Your task to perform on an android device: Do I have any events tomorrow? Image 0: 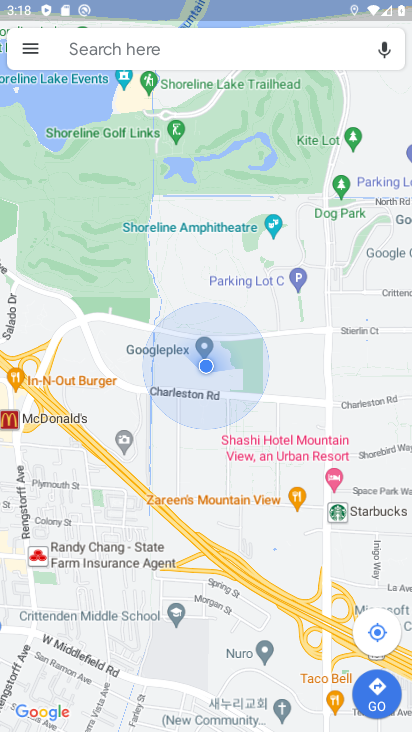
Step 0: press home button
Your task to perform on an android device: Do I have any events tomorrow? Image 1: 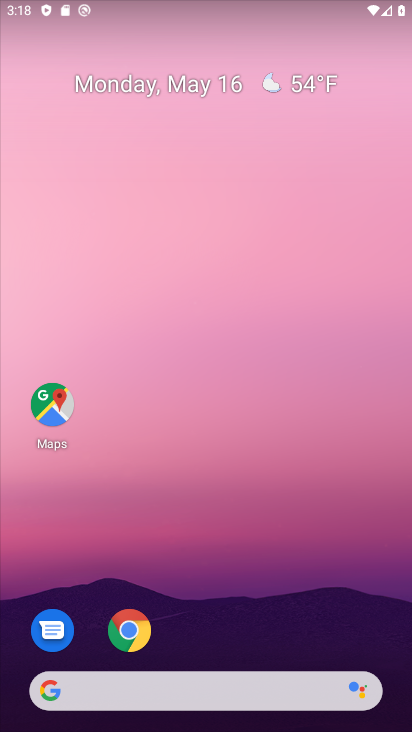
Step 1: drag from (245, 626) to (183, 196)
Your task to perform on an android device: Do I have any events tomorrow? Image 2: 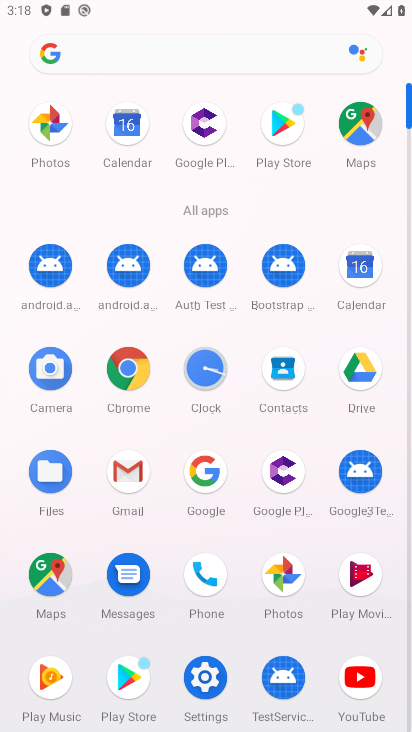
Step 2: click (368, 276)
Your task to perform on an android device: Do I have any events tomorrow? Image 3: 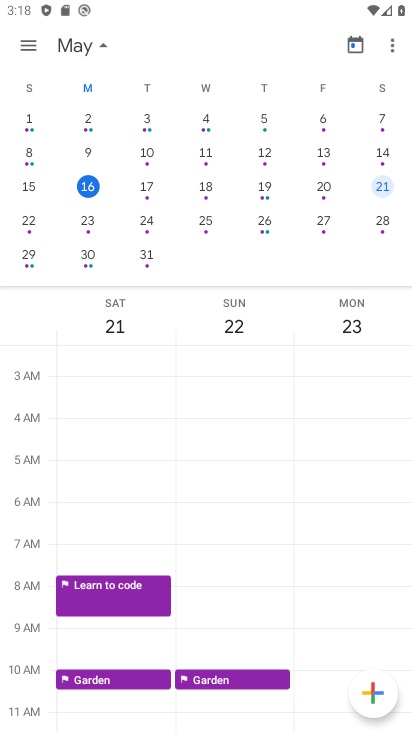
Step 3: click (30, 42)
Your task to perform on an android device: Do I have any events tomorrow? Image 4: 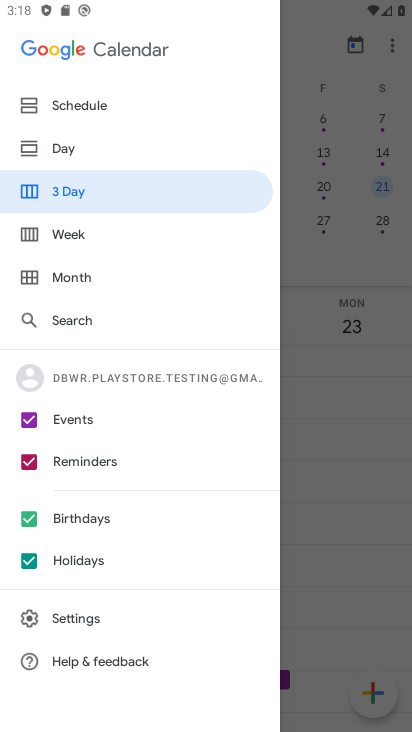
Step 4: click (61, 105)
Your task to perform on an android device: Do I have any events tomorrow? Image 5: 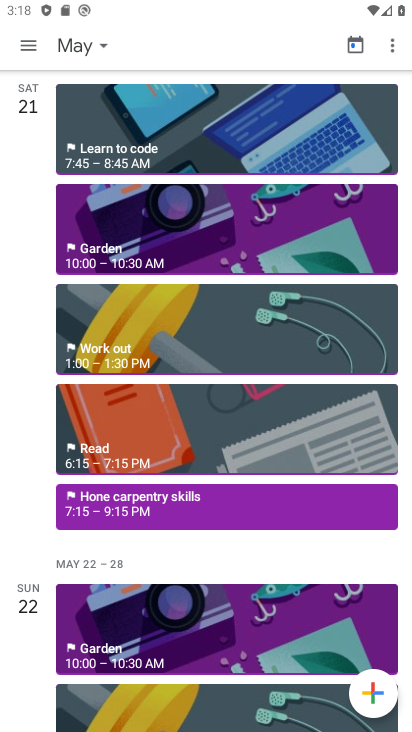
Step 5: click (81, 43)
Your task to perform on an android device: Do I have any events tomorrow? Image 6: 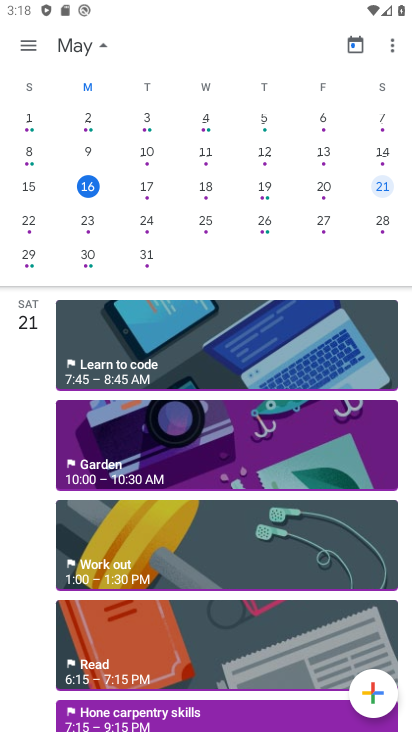
Step 6: click (153, 191)
Your task to perform on an android device: Do I have any events tomorrow? Image 7: 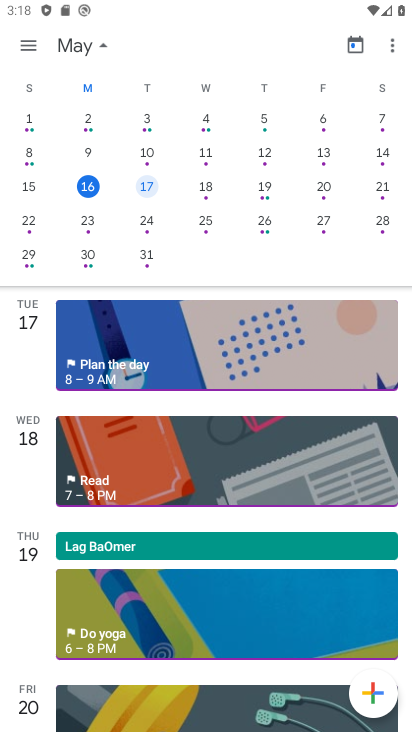
Step 7: click (93, 46)
Your task to perform on an android device: Do I have any events tomorrow? Image 8: 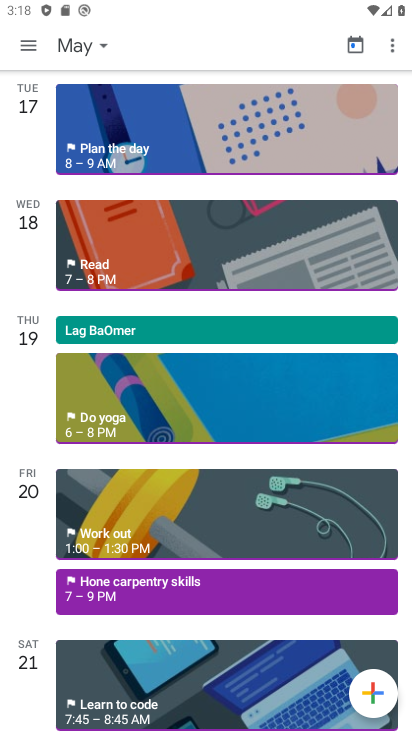
Step 8: task complete